Your task to perform on an android device: check data usage Image 0: 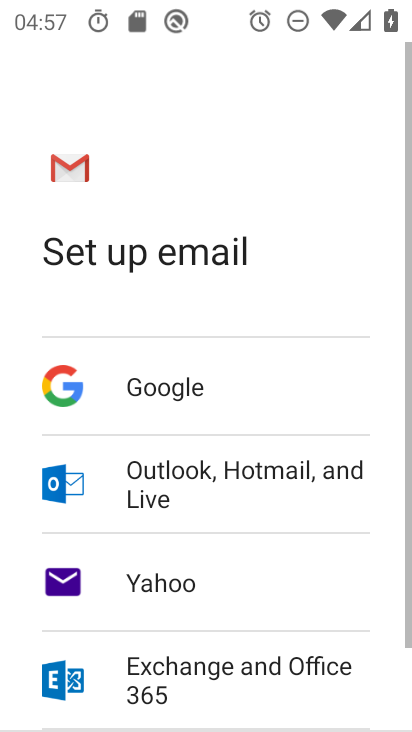
Step 0: press back button
Your task to perform on an android device: check data usage Image 1: 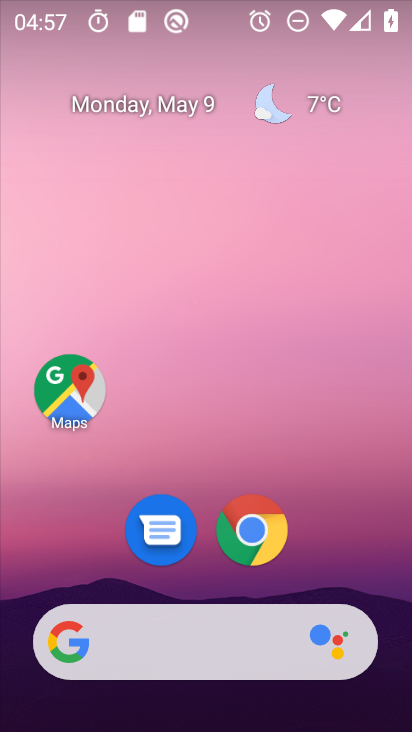
Step 1: press back button
Your task to perform on an android device: check data usage Image 2: 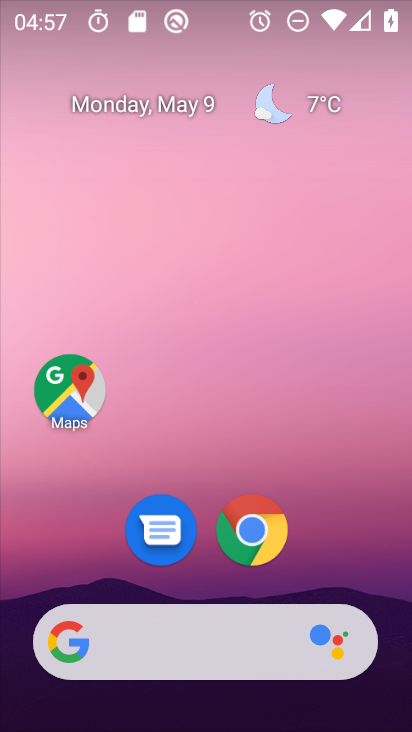
Step 2: drag from (217, 570) to (254, 77)
Your task to perform on an android device: check data usage Image 3: 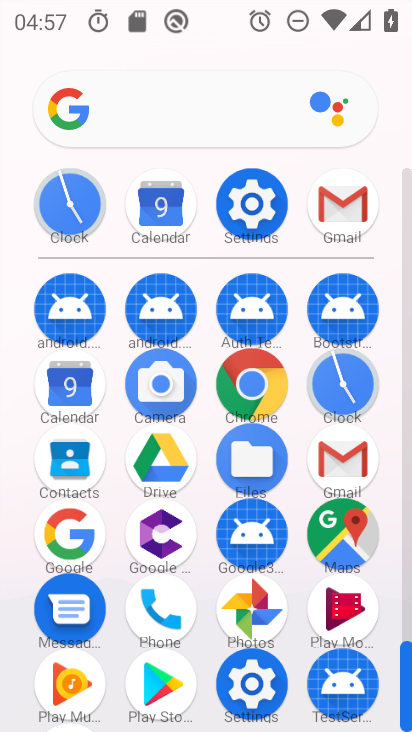
Step 3: click (266, 198)
Your task to perform on an android device: check data usage Image 4: 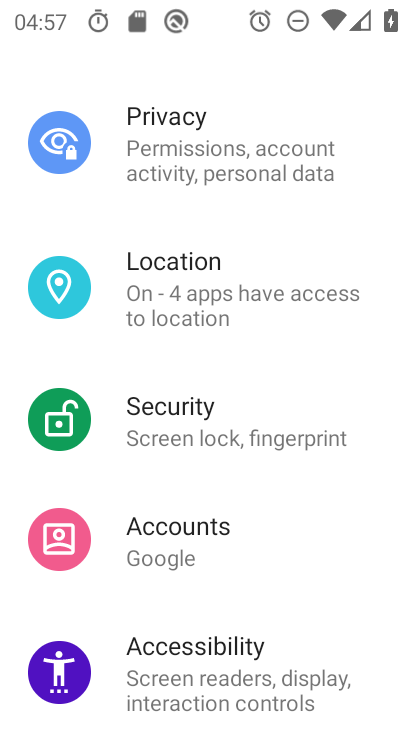
Step 4: drag from (248, 263) to (164, 722)
Your task to perform on an android device: check data usage Image 5: 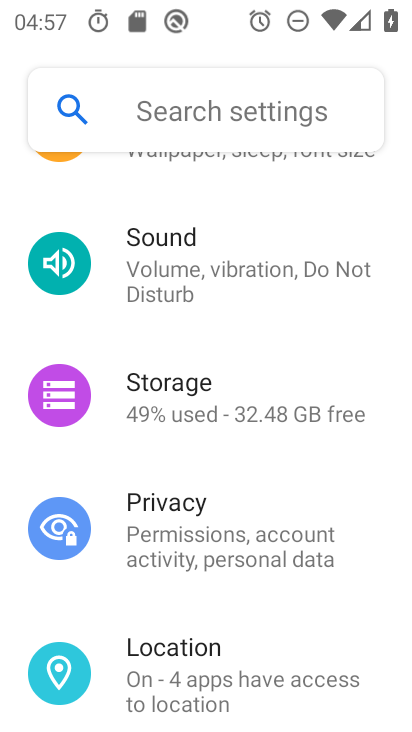
Step 5: drag from (252, 280) to (270, 709)
Your task to perform on an android device: check data usage Image 6: 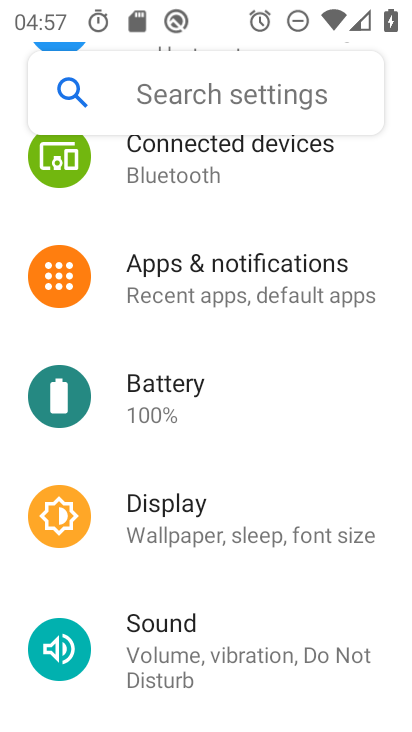
Step 6: drag from (231, 312) to (178, 723)
Your task to perform on an android device: check data usage Image 7: 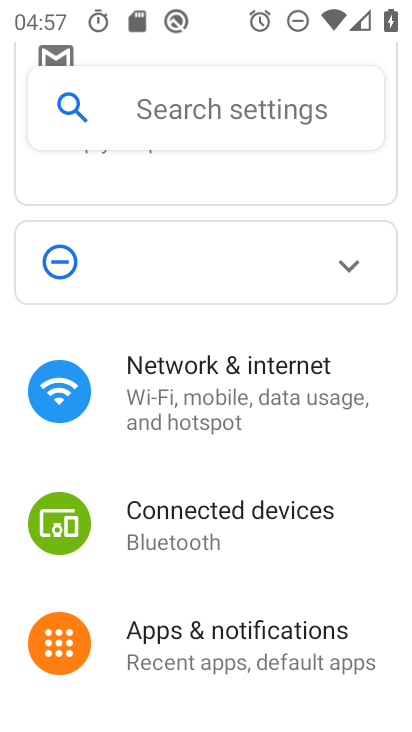
Step 7: click (219, 410)
Your task to perform on an android device: check data usage Image 8: 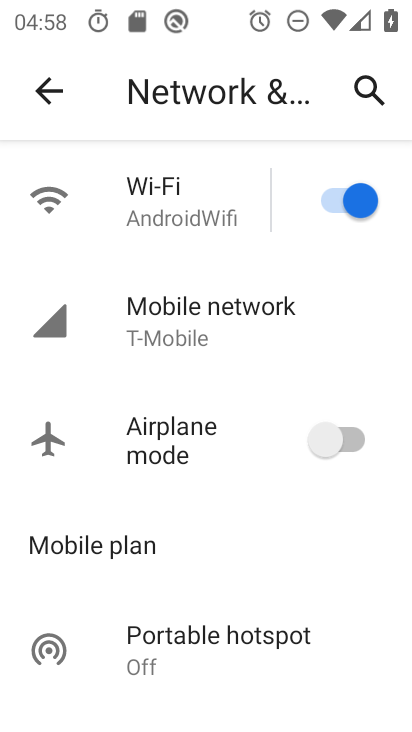
Step 8: click (174, 331)
Your task to perform on an android device: check data usage Image 9: 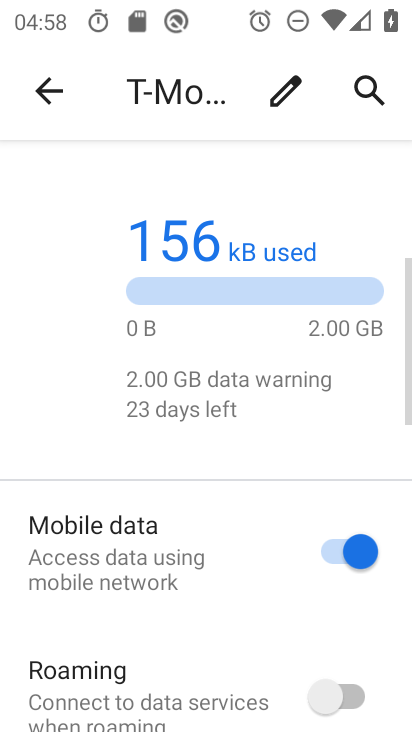
Step 9: drag from (161, 678) to (210, 235)
Your task to perform on an android device: check data usage Image 10: 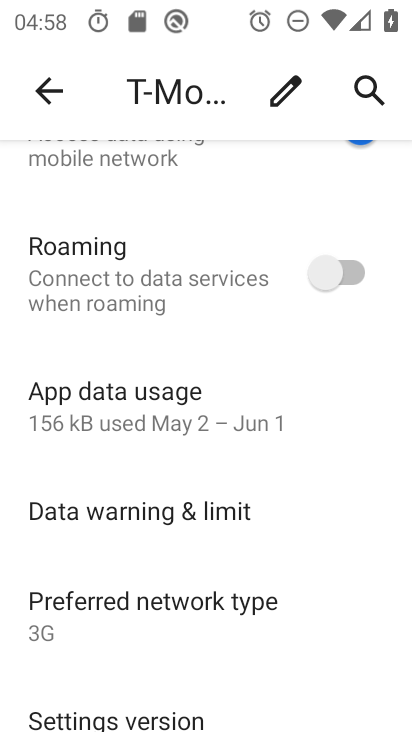
Step 10: click (155, 408)
Your task to perform on an android device: check data usage Image 11: 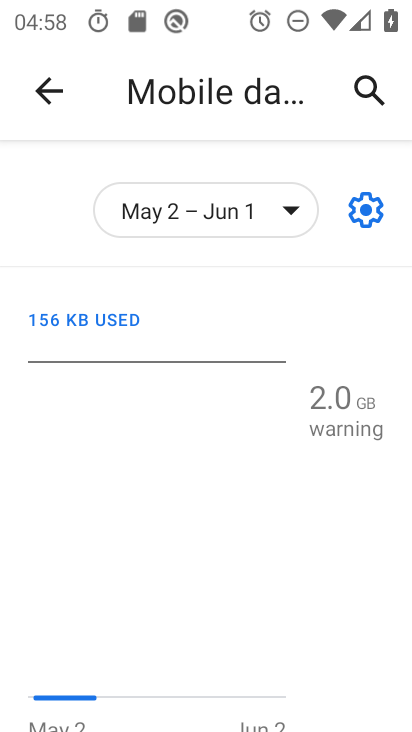
Step 11: task complete